Your task to perform on an android device: Toggle the flashlight Image 0: 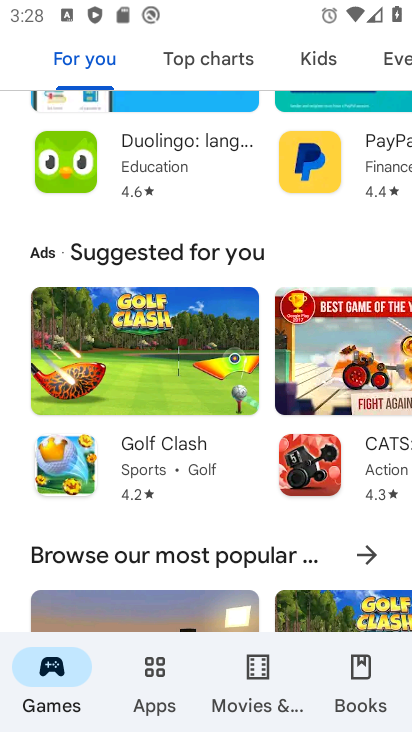
Step 0: drag from (252, 588) to (317, 218)
Your task to perform on an android device: Toggle the flashlight Image 1: 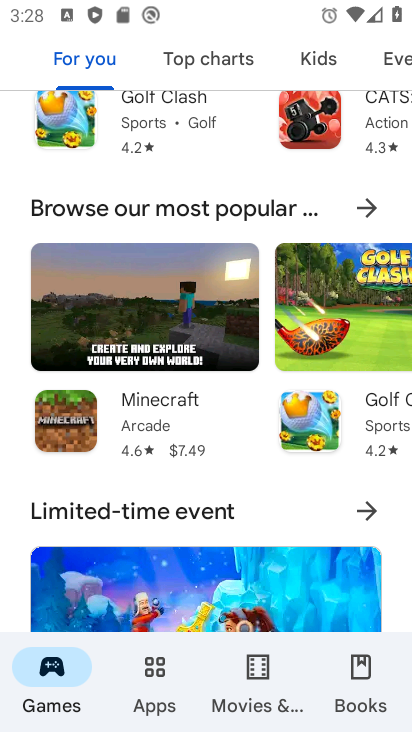
Step 1: press home button
Your task to perform on an android device: Toggle the flashlight Image 2: 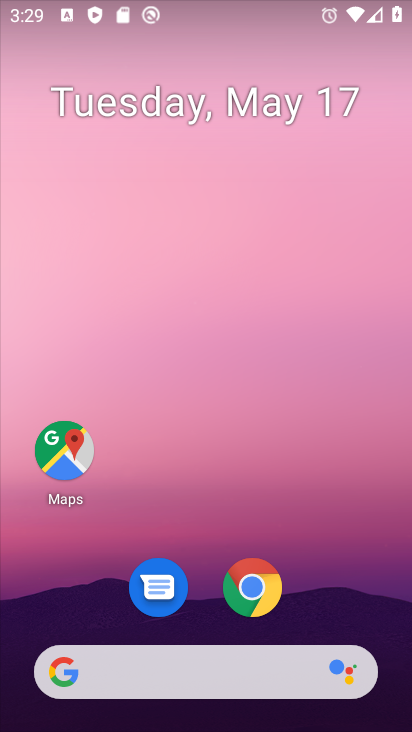
Step 2: drag from (205, 608) to (257, 129)
Your task to perform on an android device: Toggle the flashlight Image 3: 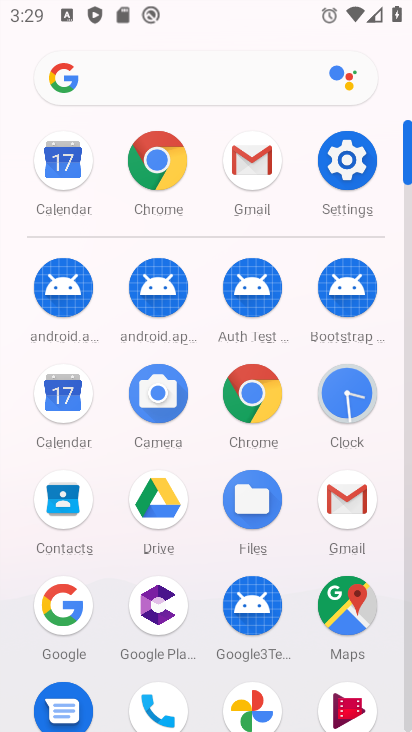
Step 3: click (334, 143)
Your task to perform on an android device: Toggle the flashlight Image 4: 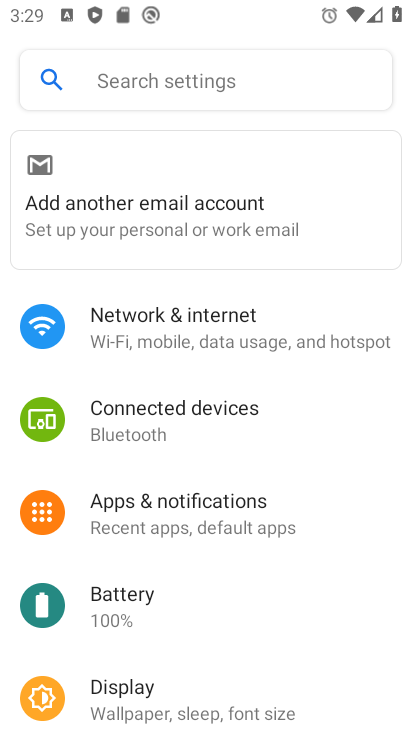
Step 4: click (259, 67)
Your task to perform on an android device: Toggle the flashlight Image 5: 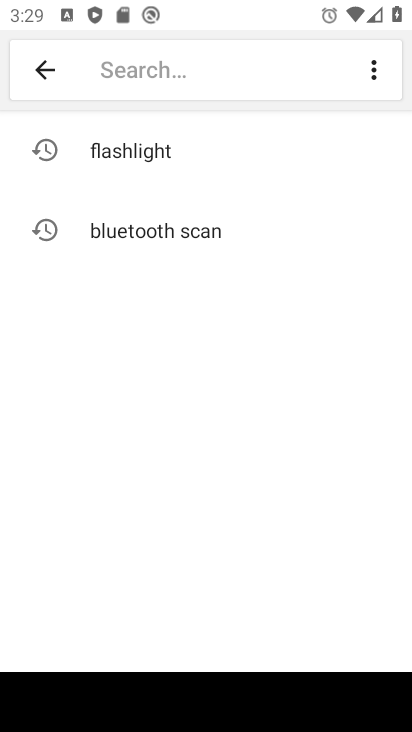
Step 5: click (141, 144)
Your task to perform on an android device: Toggle the flashlight Image 6: 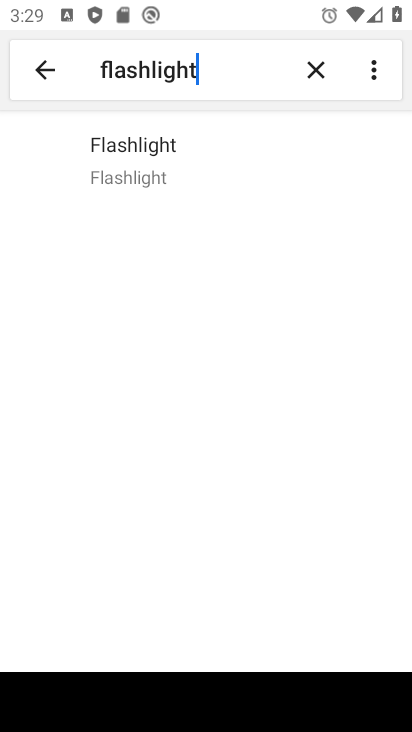
Step 6: task complete